Your task to perform on an android device: open chrome privacy settings Image 0: 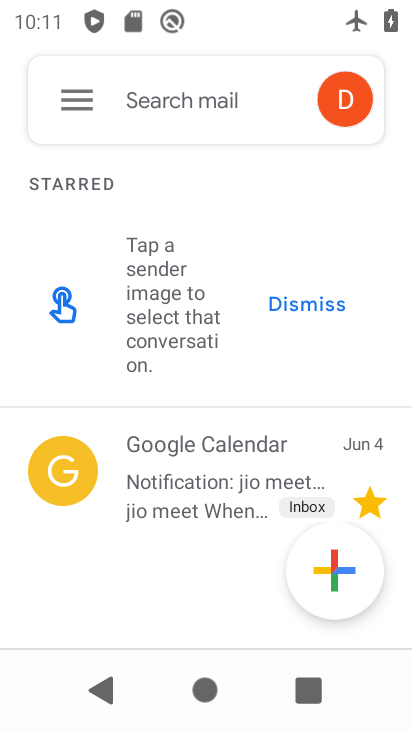
Step 0: press home button
Your task to perform on an android device: open chrome privacy settings Image 1: 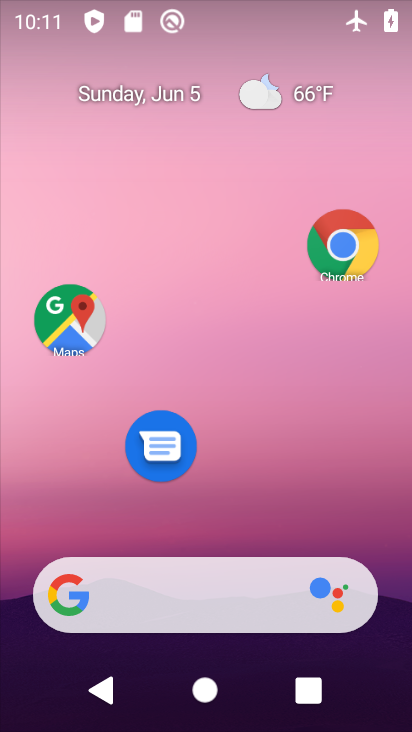
Step 1: click (318, 222)
Your task to perform on an android device: open chrome privacy settings Image 2: 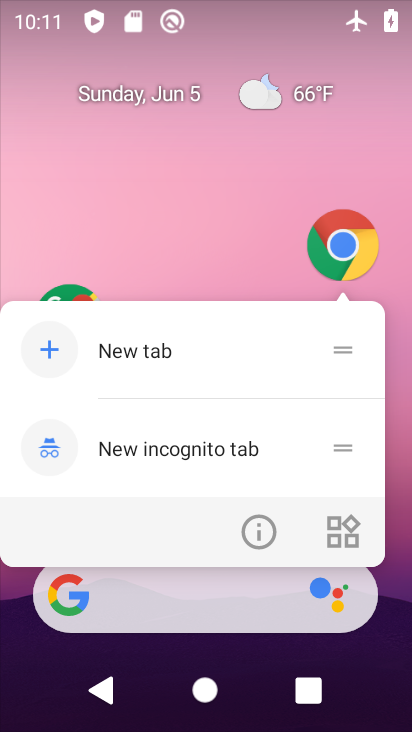
Step 2: click (318, 222)
Your task to perform on an android device: open chrome privacy settings Image 3: 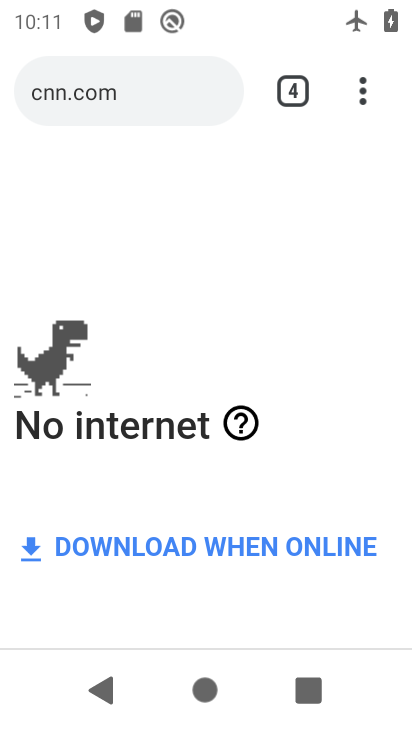
Step 3: drag from (362, 83) to (100, 486)
Your task to perform on an android device: open chrome privacy settings Image 4: 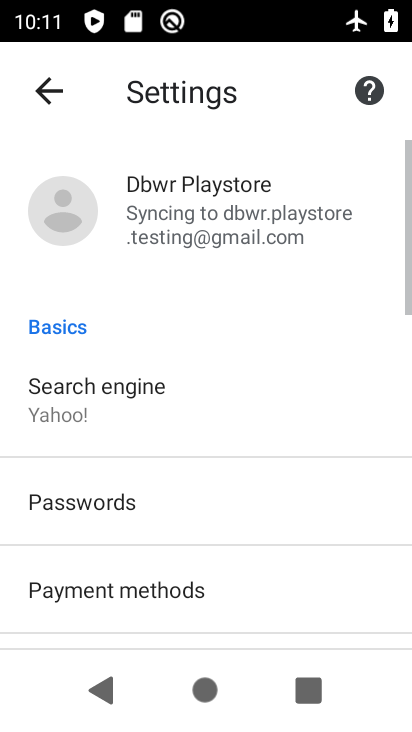
Step 4: drag from (246, 485) to (287, 205)
Your task to perform on an android device: open chrome privacy settings Image 5: 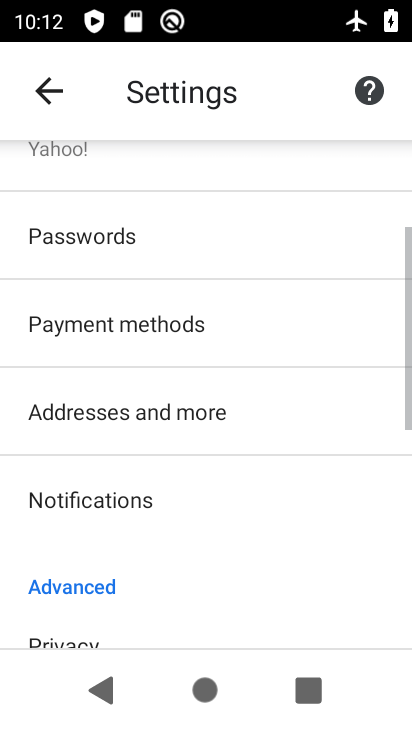
Step 5: drag from (238, 382) to (271, 229)
Your task to perform on an android device: open chrome privacy settings Image 6: 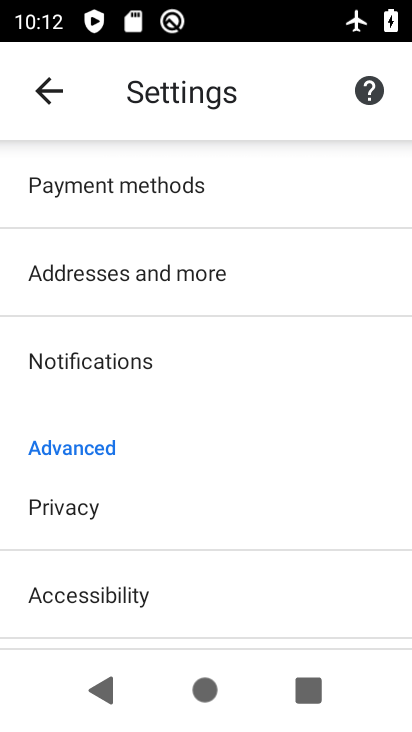
Step 6: click (158, 507)
Your task to perform on an android device: open chrome privacy settings Image 7: 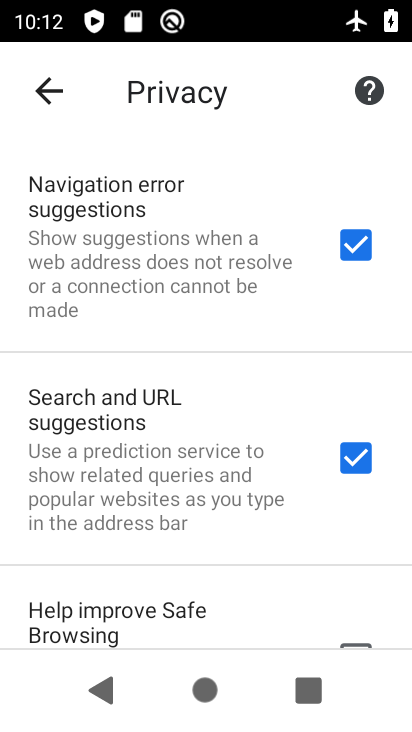
Step 7: task complete